Your task to perform on an android device: open the mobile data screen to see how much data has been used Image 0: 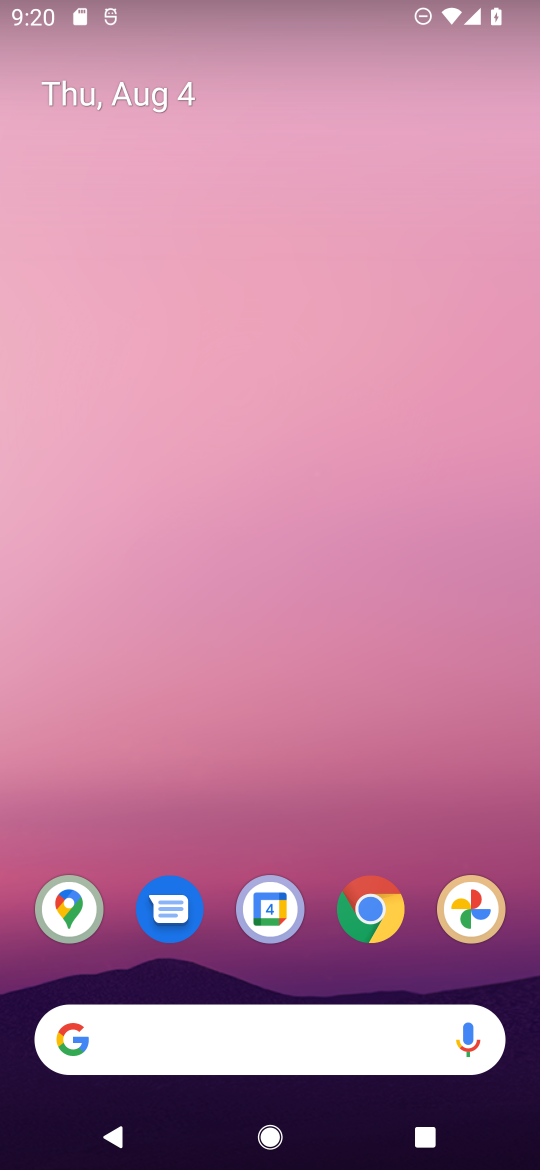
Step 0: press home button
Your task to perform on an android device: open the mobile data screen to see how much data has been used Image 1: 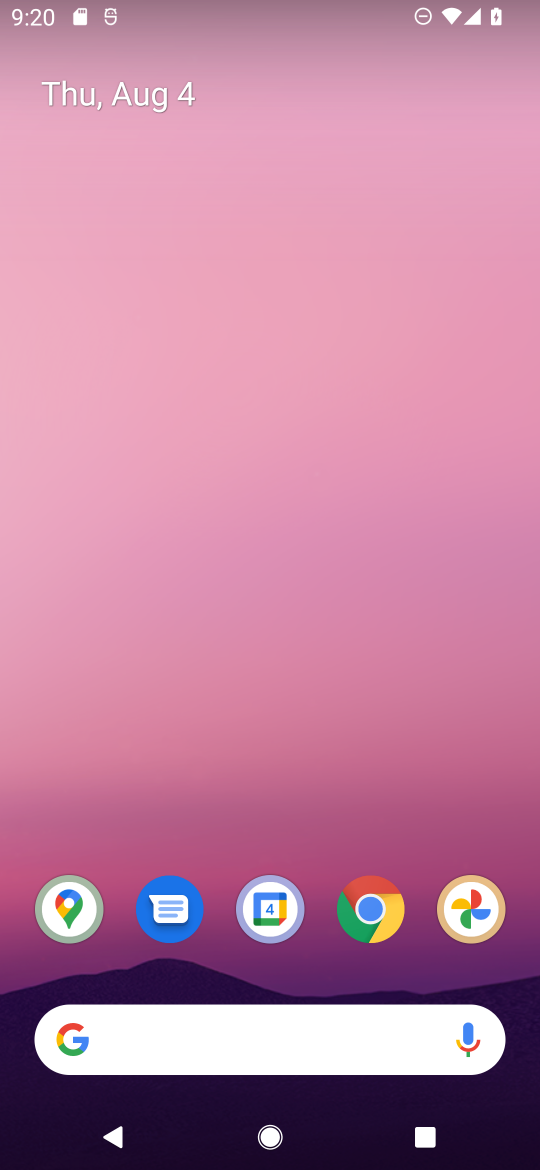
Step 1: drag from (321, 841) to (335, 185)
Your task to perform on an android device: open the mobile data screen to see how much data has been used Image 2: 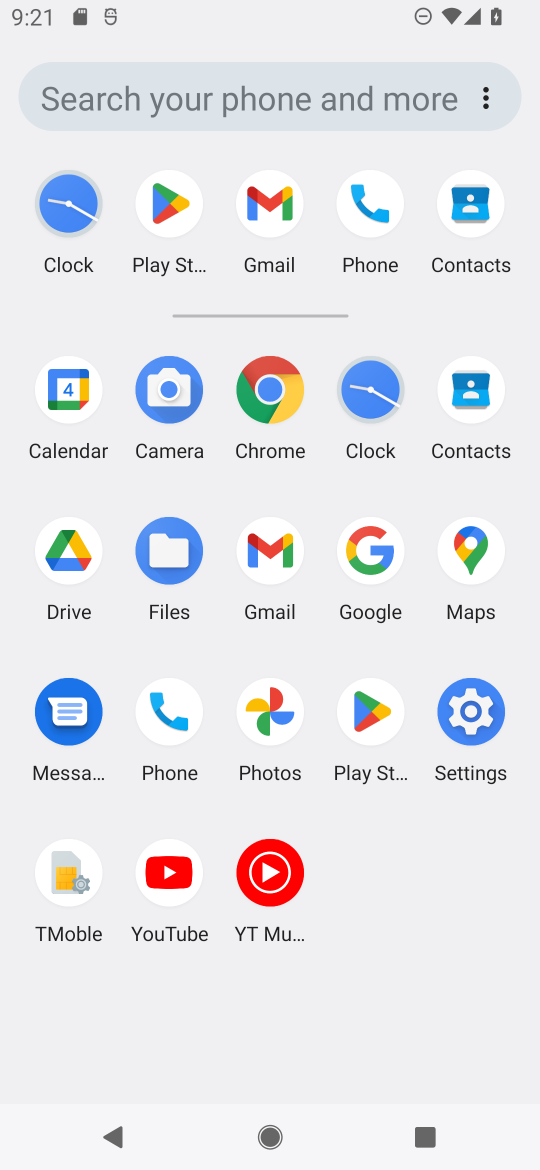
Step 2: click (471, 711)
Your task to perform on an android device: open the mobile data screen to see how much data has been used Image 3: 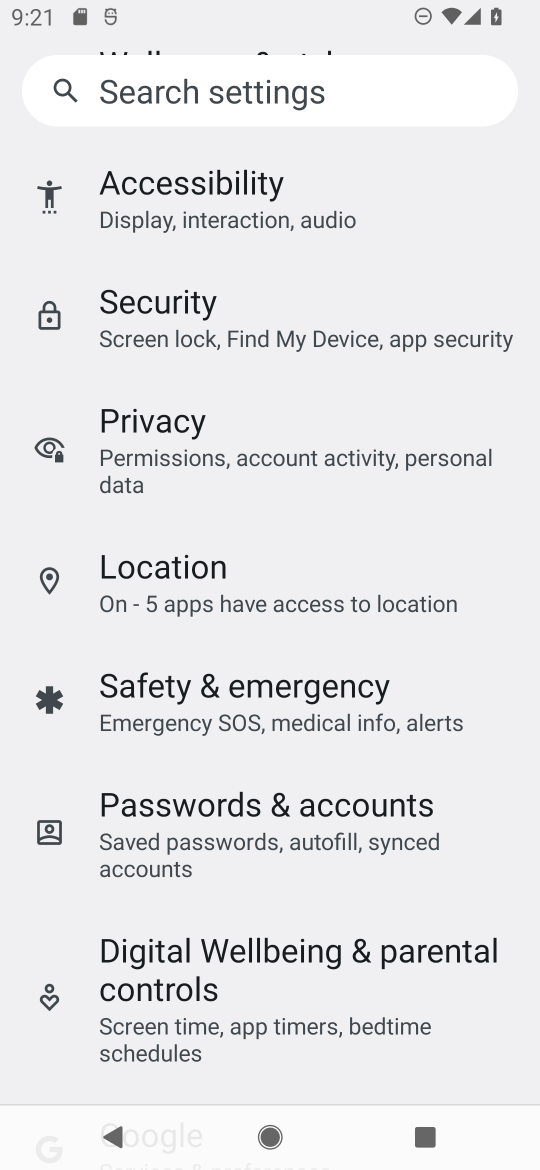
Step 3: drag from (496, 510) to (494, 741)
Your task to perform on an android device: open the mobile data screen to see how much data has been used Image 4: 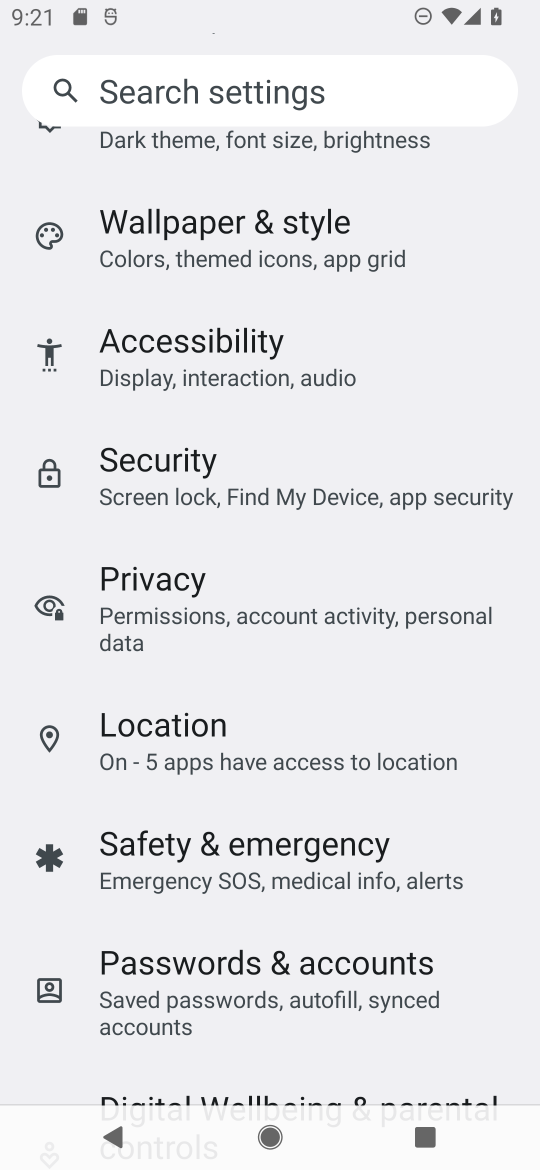
Step 4: drag from (487, 300) to (491, 579)
Your task to perform on an android device: open the mobile data screen to see how much data has been used Image 5: 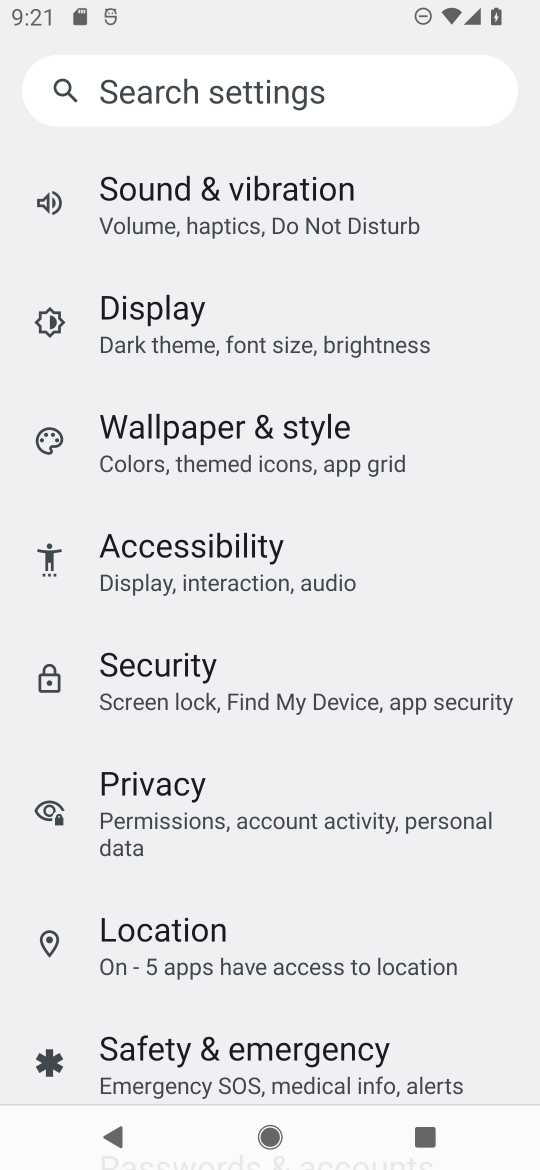
Step 5: drag from (476, 277) to (487, 477)
Your task to perform on an android device: open the mobile data screen to see how much data has been used Image 6: 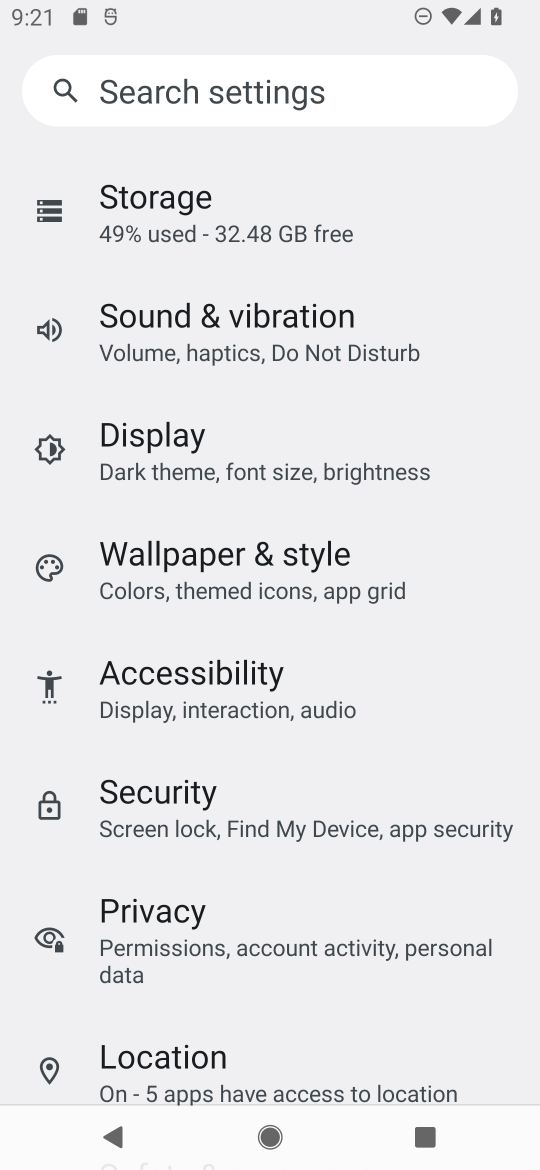
Step 6: drag from (468, 225) to (481, 489)
Your task to perform on an android device: open the mobile data screen to see how much data has been used Image 7: 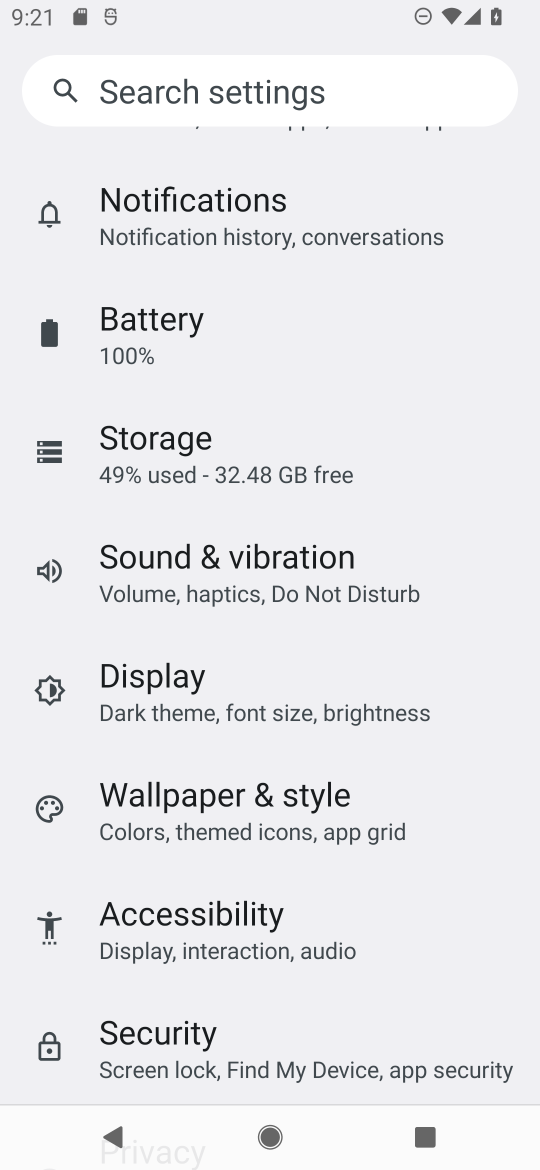
Step 7: drag from (481, 183) to (483, 503)
Your task to perform on an android device: open the mobile data screen to see how much data has been used Image 8: 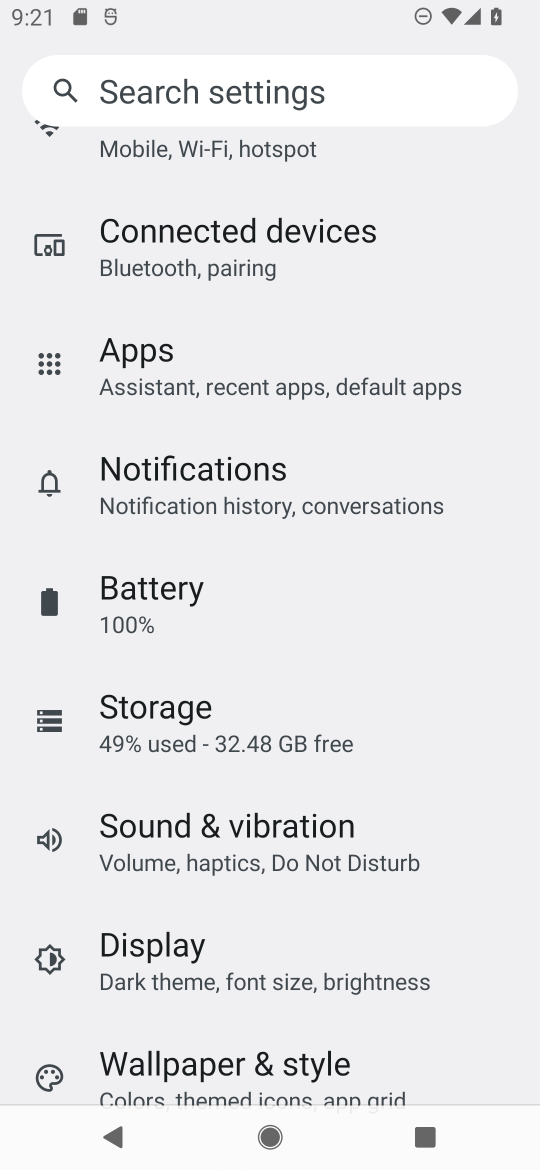
Step 8: drag from (484, 215) to (483, 461)
Your task to perform on an android device: open the mobile data screen to see how much data has been used Image 9: 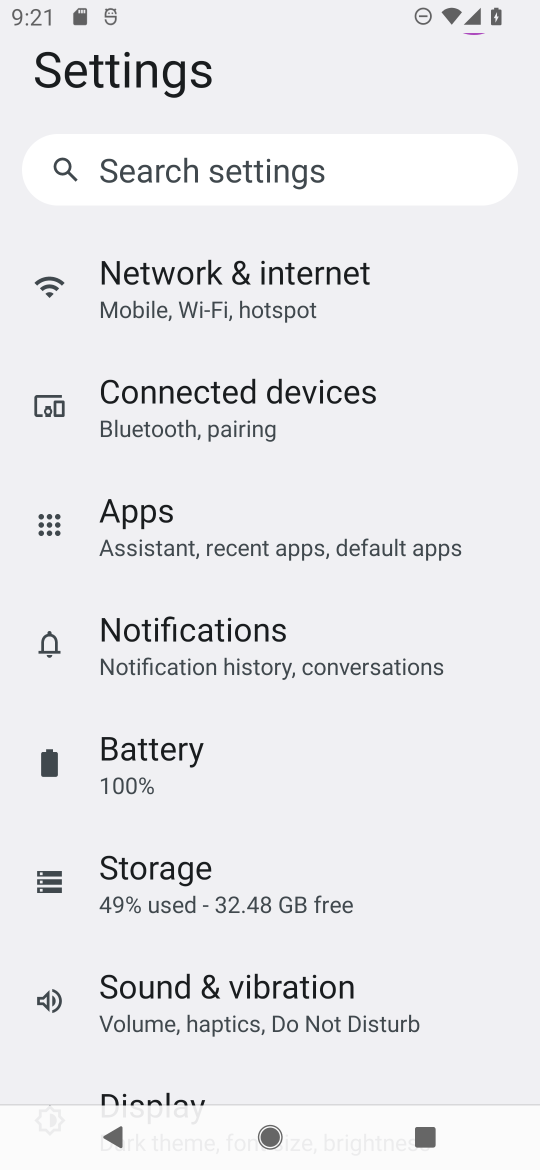
Step 9: drag from (487, 251) to (481, 618)
Your task to perform on an android device: open the mobile data screen to see how much data has been used Image 10: 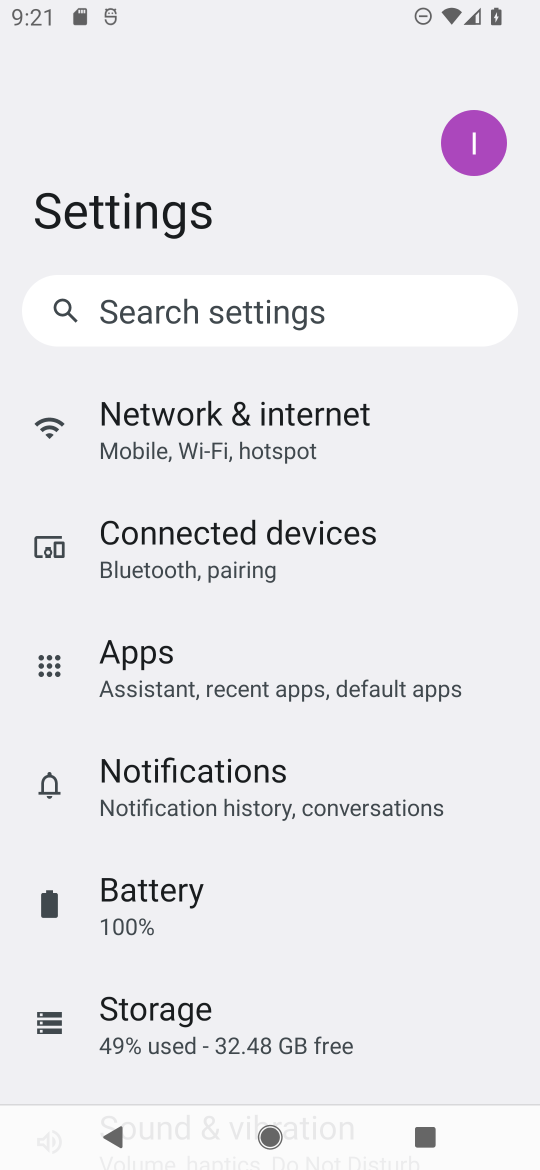
Step 10: drag from (473, 424) to (478, 706)
Your task to perform on an android device: open the mobile data screen to see how much data has been used Image 11: 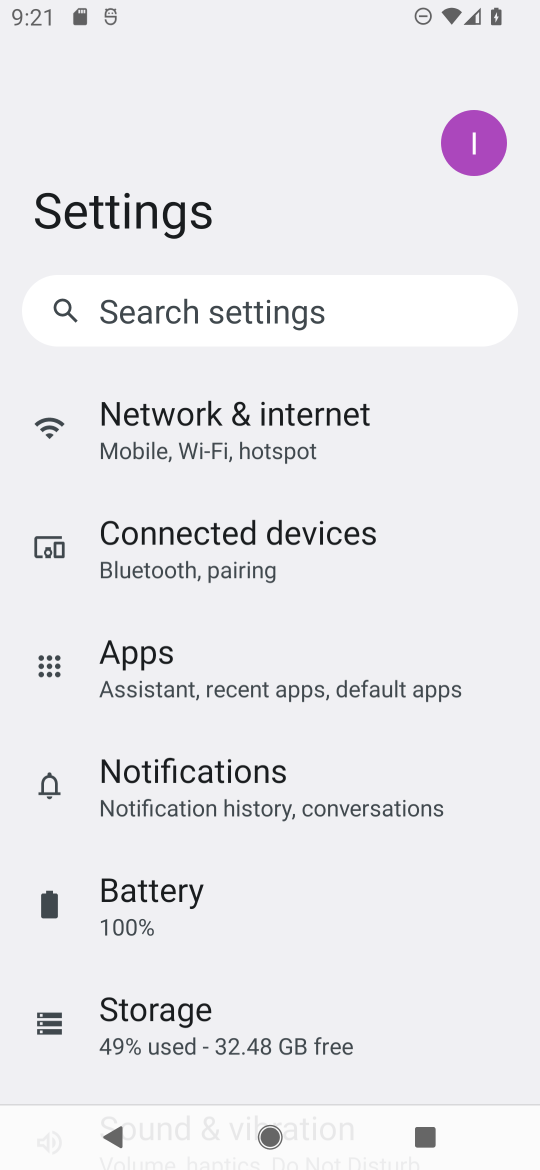
Step 11: drag from (437, 867) to (463, 647)
Your task to perform on an android device: open the mobile data screen to see how much data has been used Image 12: 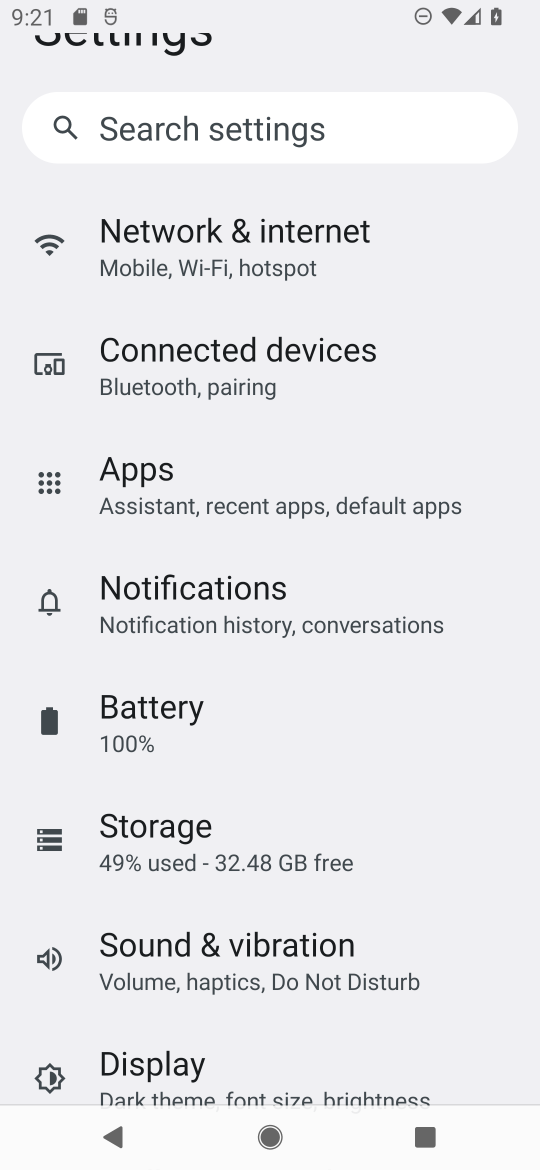
Step 12: drag from (452, 864) to (470, 657)
Your task to perform on an android device: open the mobile data screen to see how much data has been used Image 13: 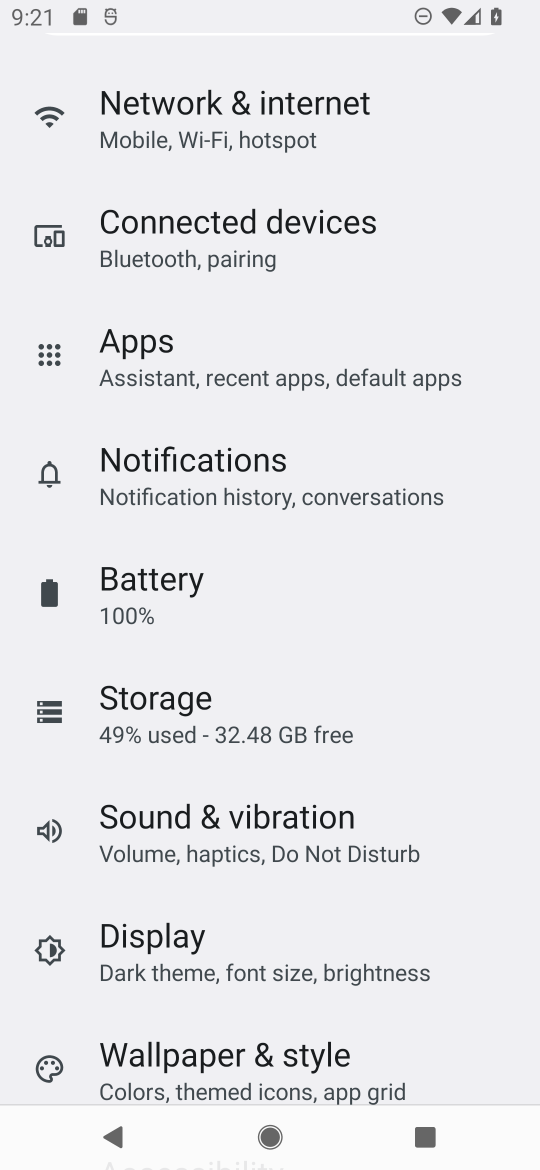
Step 13: drag from (458, 944) to (471, 654)
Your task to perform on an android device: open the mobile data screen to see how much data has been used Image 14: 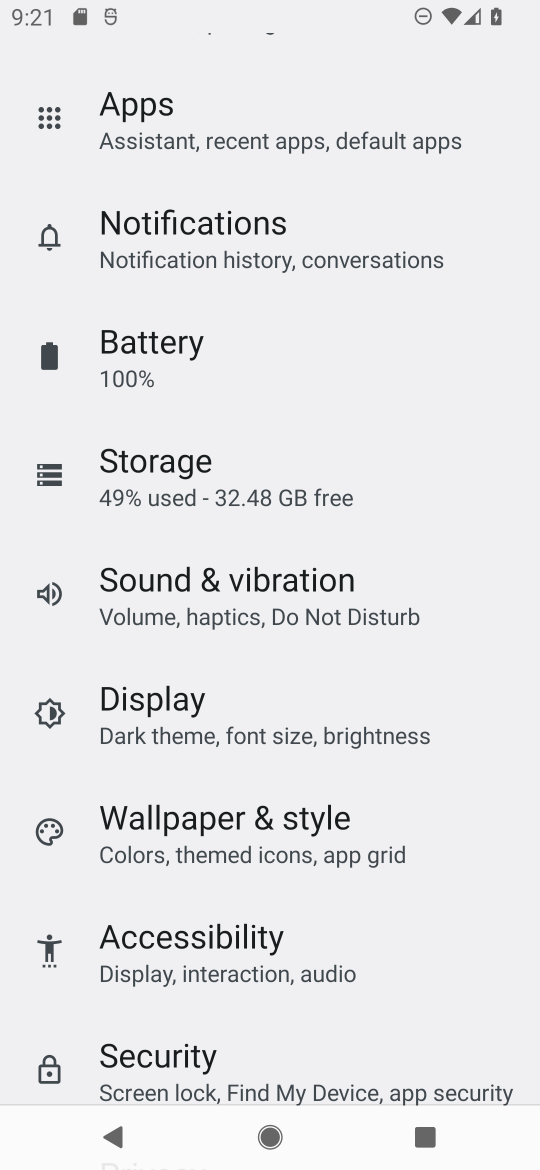
Step 14: drag from (435, 974) to (450, 690)
Your task to perform on an android device: open the mobile data screen to see how much data has been used Image 15: 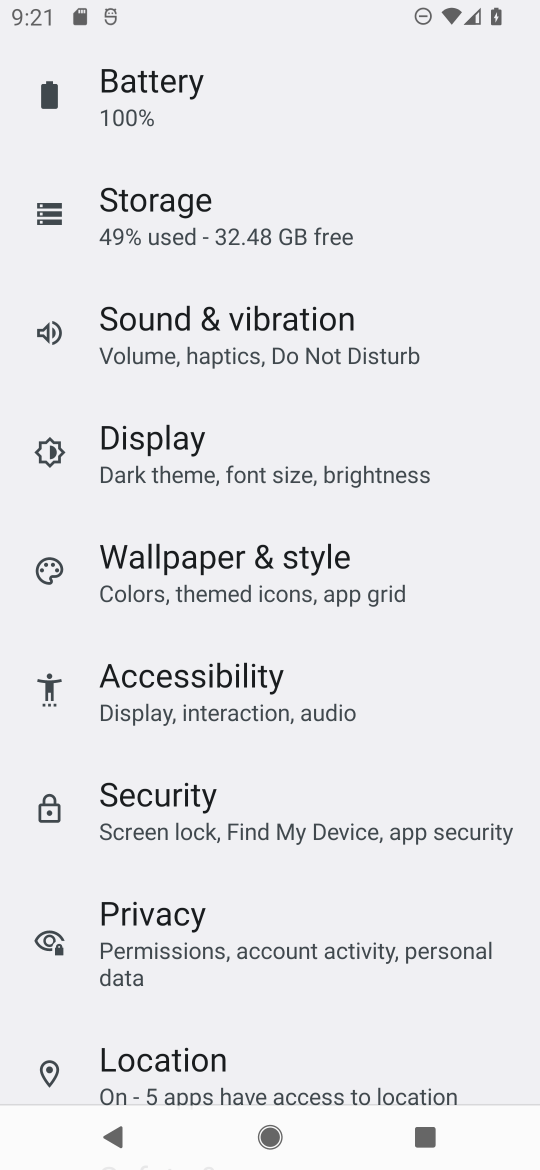
Step 15: drag from (403, 947) to (448, 684)
Your task to perform on an android device: open the mobile data screen to see how much data has been used Image 16: 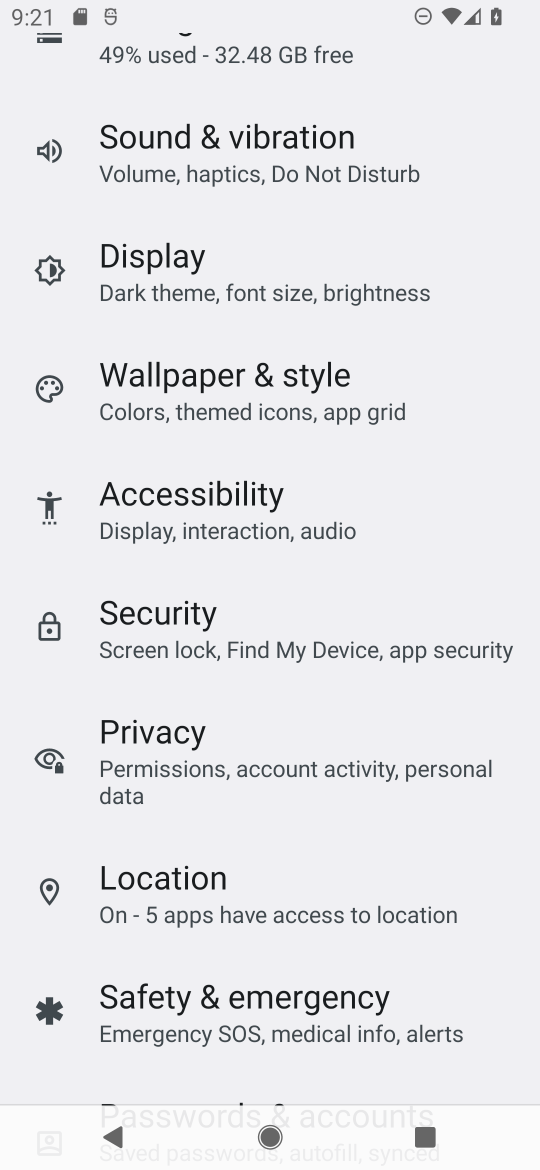
Step 16: drag from (477, 360) to (481, 598)
Your task to perform on an android device: open the mobile data screen to see how much data has been used Image 17: 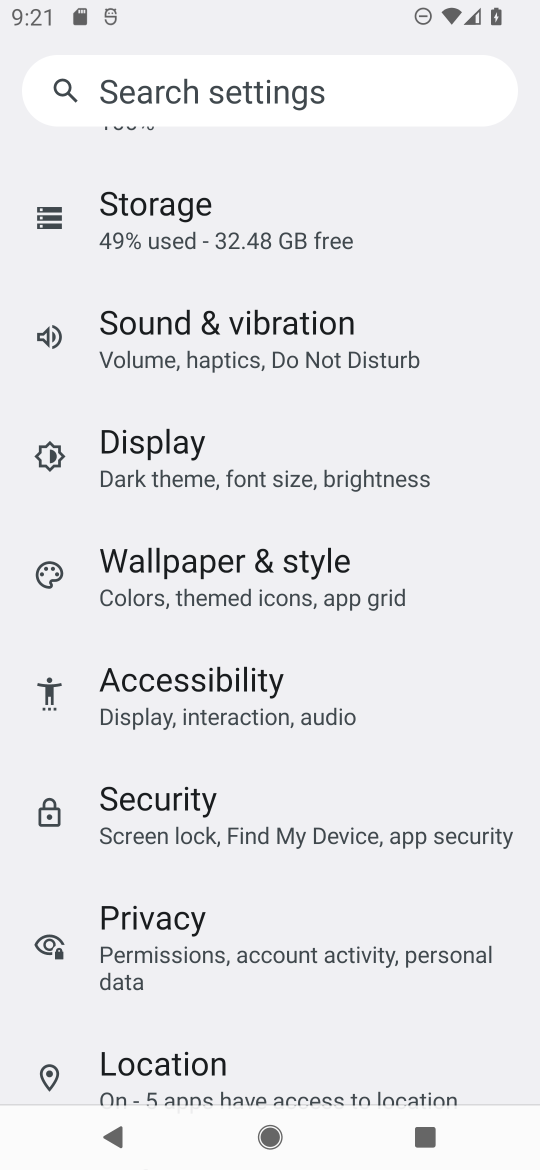
Step 17: drag from (471, 318) to (472, 575)
Your task to perform on an android device: open the mobile data screen to see how much data has been used Image 18: 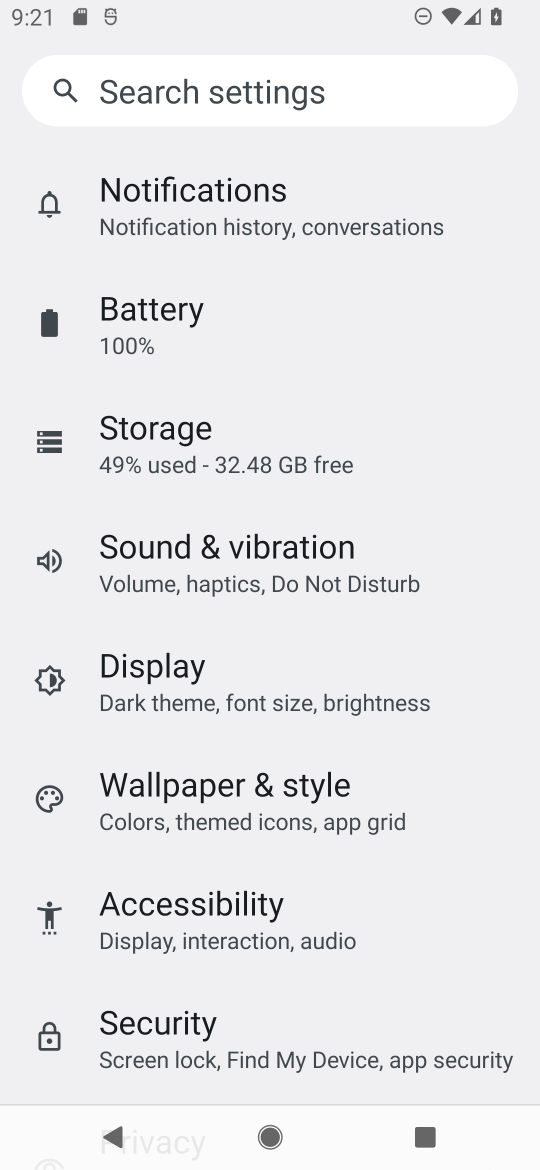
Step 18: drag from (495, 279) to (479, 630)
Your task to perform on an android device: open the mobile data screen to see how much data has been used Image 19: 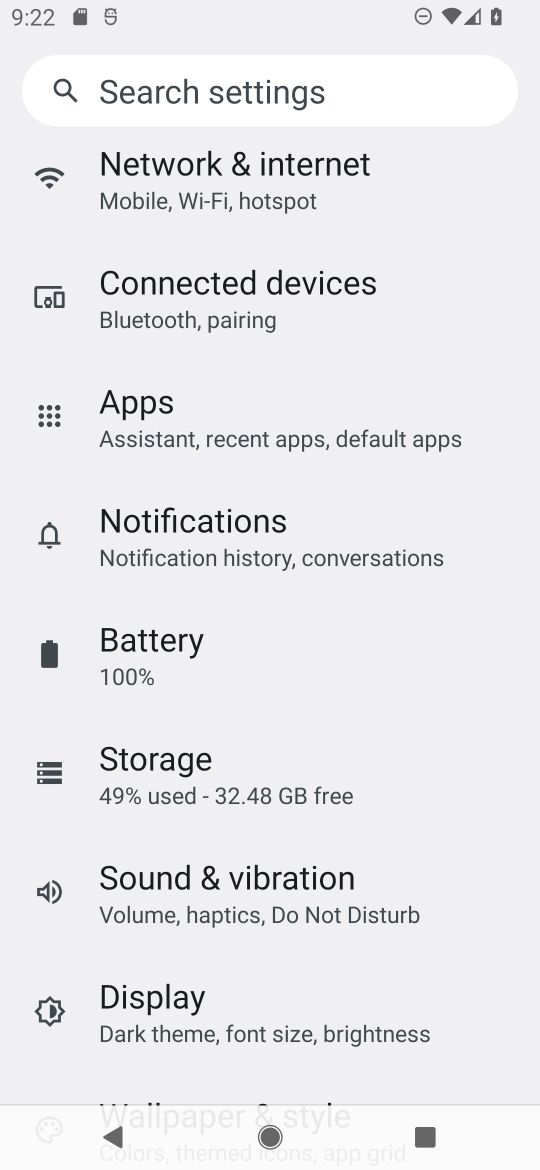
Step 19: drag from (504, 237) to (484, 575)
Your task to perform on an android device: open the mobile data screen to see how much data has been used Image 20: 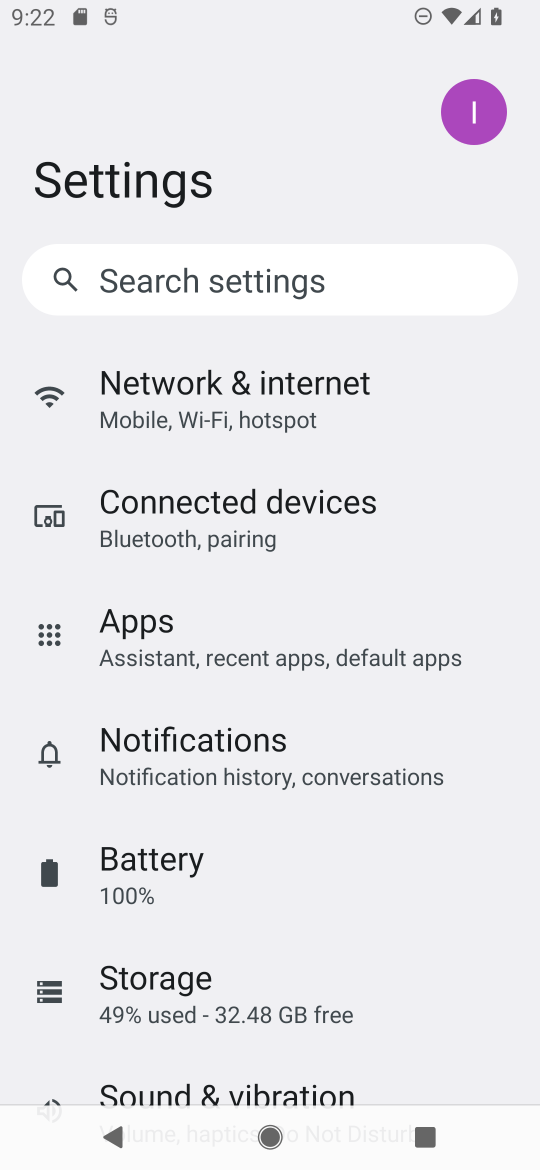
Step 20: click (321, 389)
Your task to perform on an android device: open the mobile data screen to see how much data has been used Image 21: 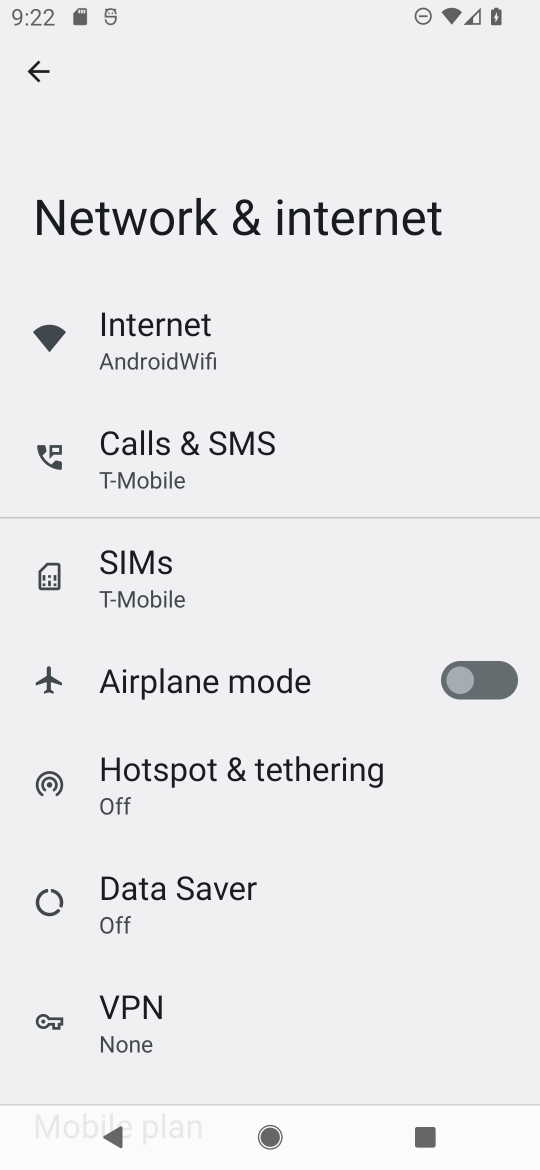
Step 21: drag from (340, 764) to (350, 627)
Your task to perform on an android device: open the mobile data screen to see how much data has been used Image 22: 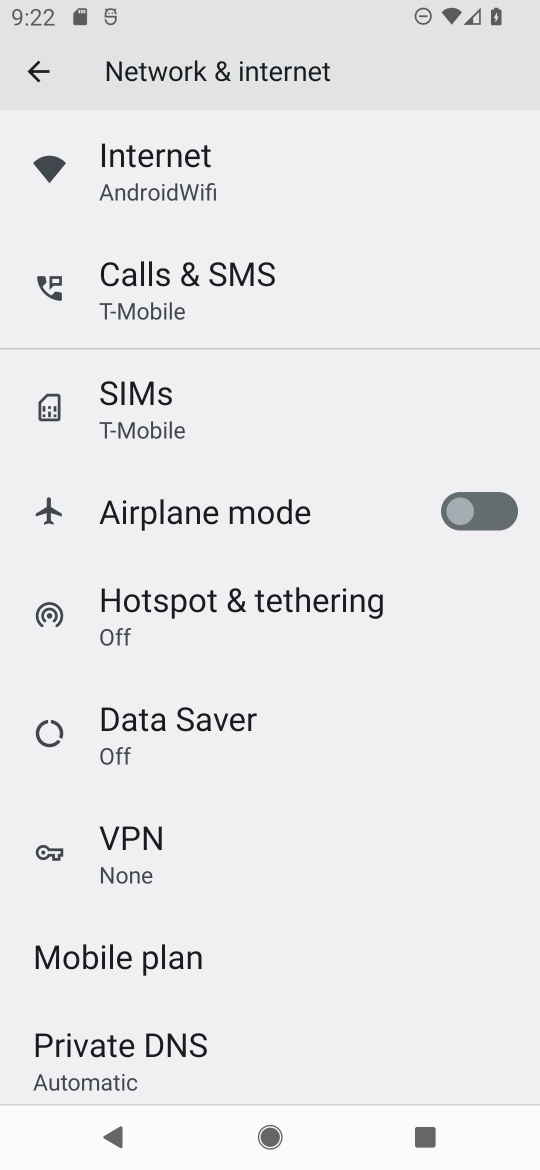
Step 22: drag from (355, 978) to (386, 650)
Your task to perform on an android device: open the mobile data screen to see how much data has been used Image 23: 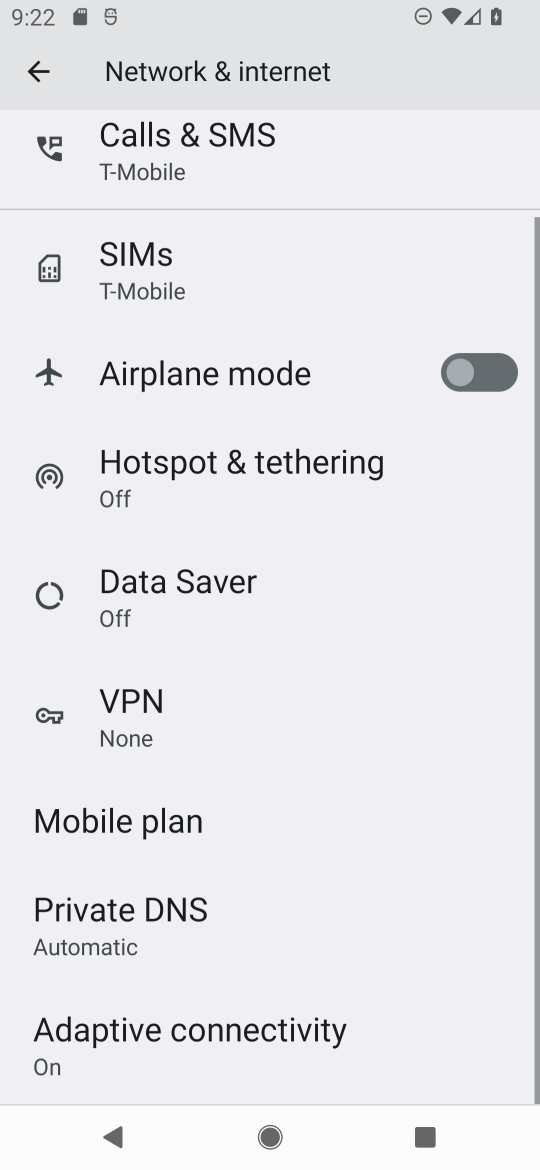
Step 23: drag from (355, 926) to (360, 575)
Your task to perform on an android device: open the mobile data screen to see how much data has been used Image 24: 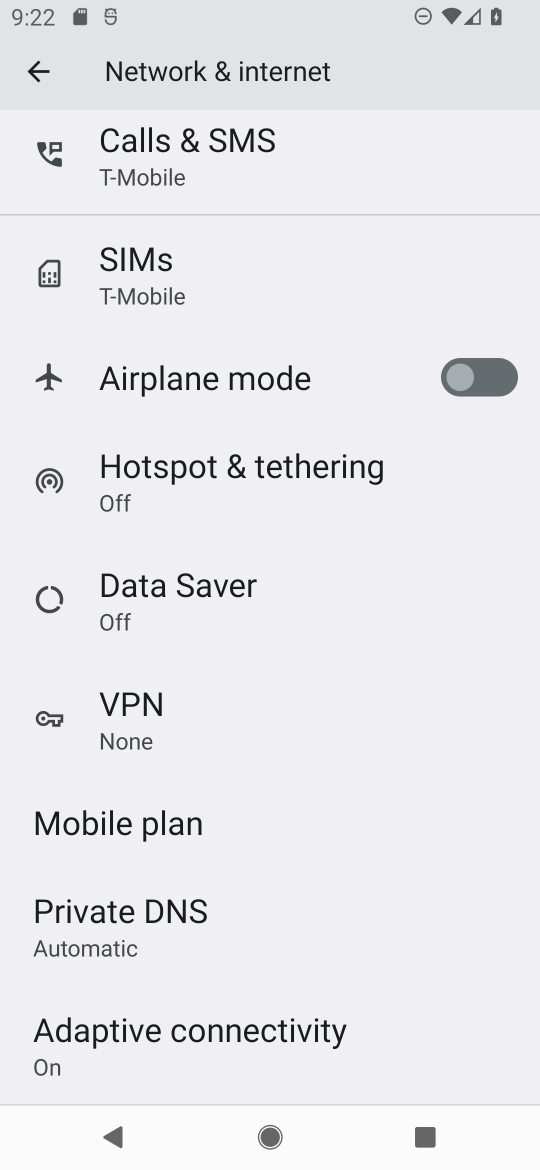
Step 24: drag from (353, 956) to (385, 584)
Your task to perform on an android device: open the mobile data screen to see how much data has been used Image 25: 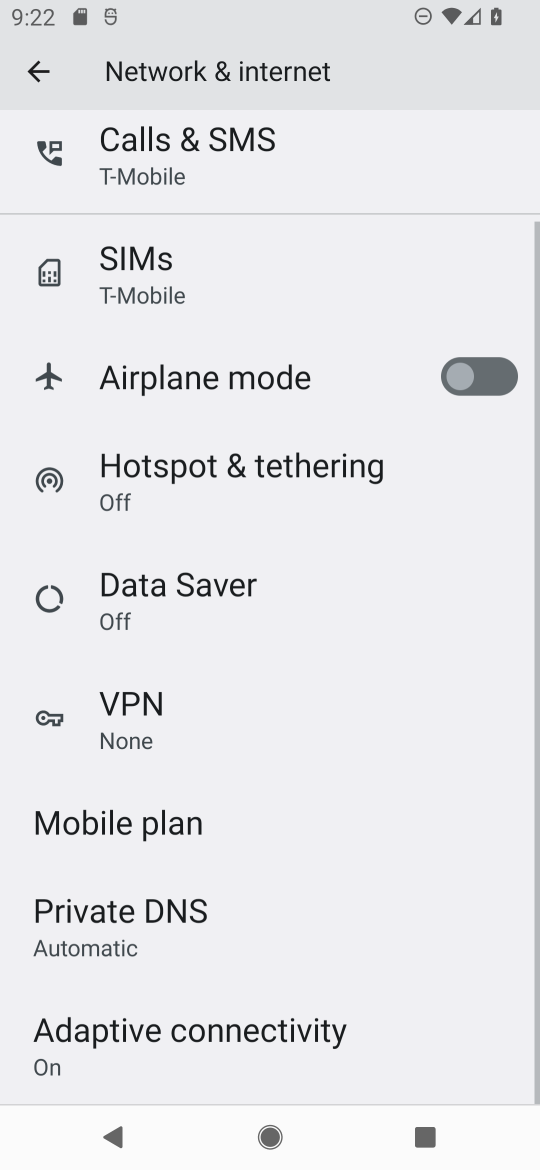
Step 25: drag from (385, 285) to (378, 622)
Your task to perform on an android device: open the mobile data screen to see how much data has been used Image 26: 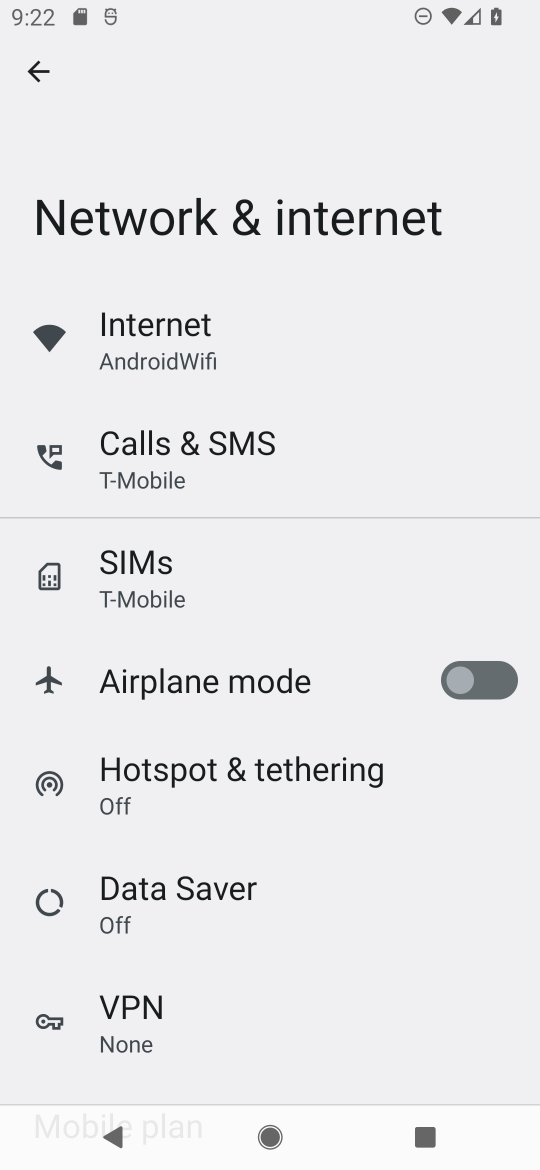
Step 26: drag from (375, 352) to (366, 653)
Your task to perform on an android device: open the mobile data screen to see how much data has been used Image 27: 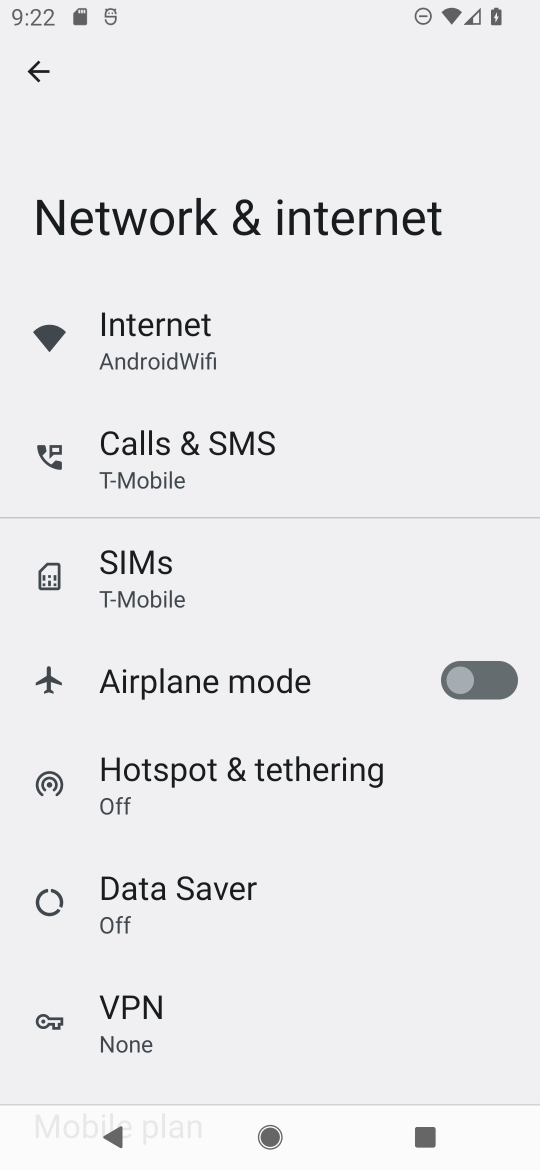
Step 27: click (383, 588)
Your task to perform on an android device: open the mobile data screen to see how much data has been used Image 28: 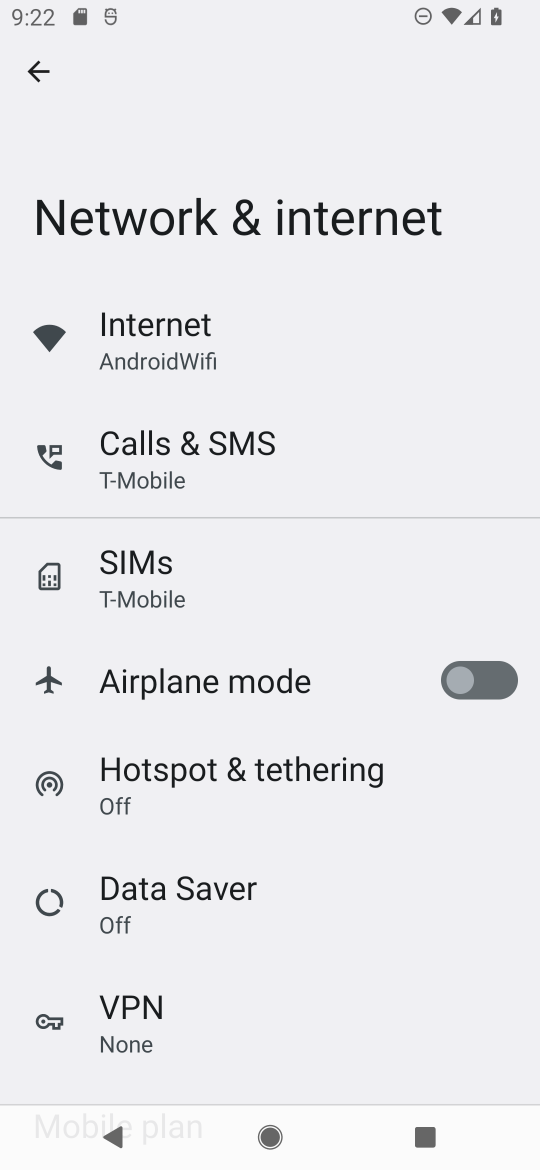
Step 28: drag from (356, 786) to (368, 583)
Your task to perform on an android device: open the mobile data screen to see how much data has been used Image 29: 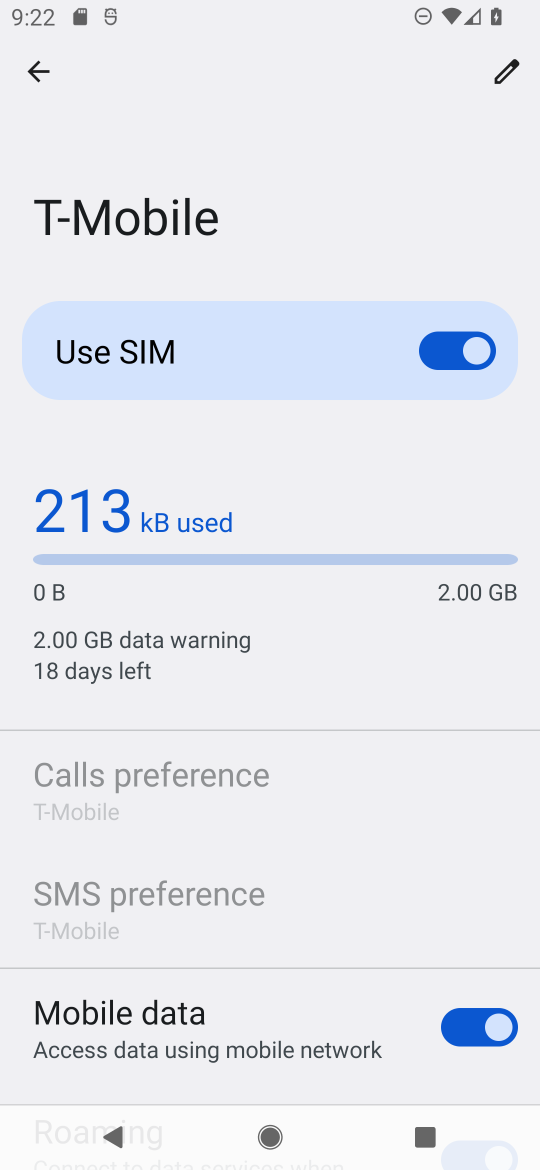
Step 29: drag from (310, 830) to (330, 498)
Your task to perform on an android device: open the mobile data screen to see how much data has been used Image 30: 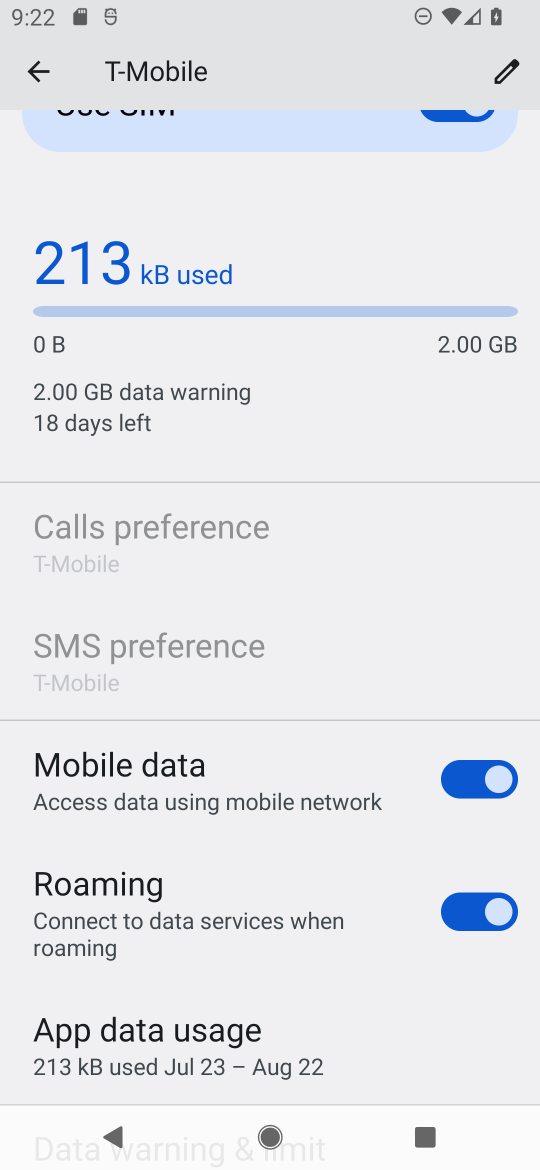
Step 30: drag from (285, 971) to (335, 532)
Your task to perform on an android device: open the mobile data screen to see how much data has been used Image 31: 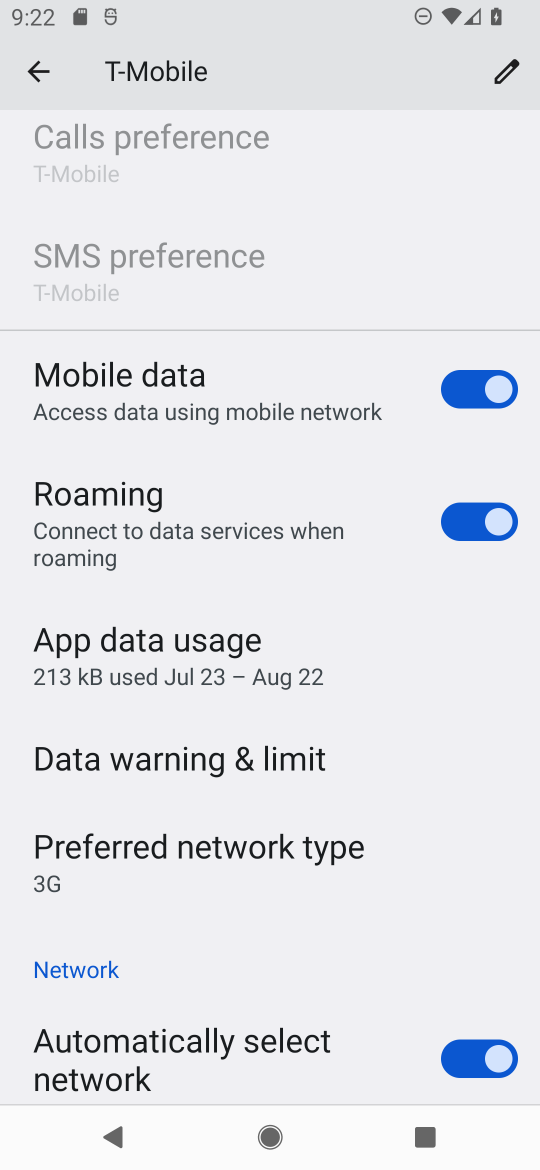
Step 31: click (319, 647)
Your task to perform on an android device: open the mobile data screen to see how much data has been used Image 32: 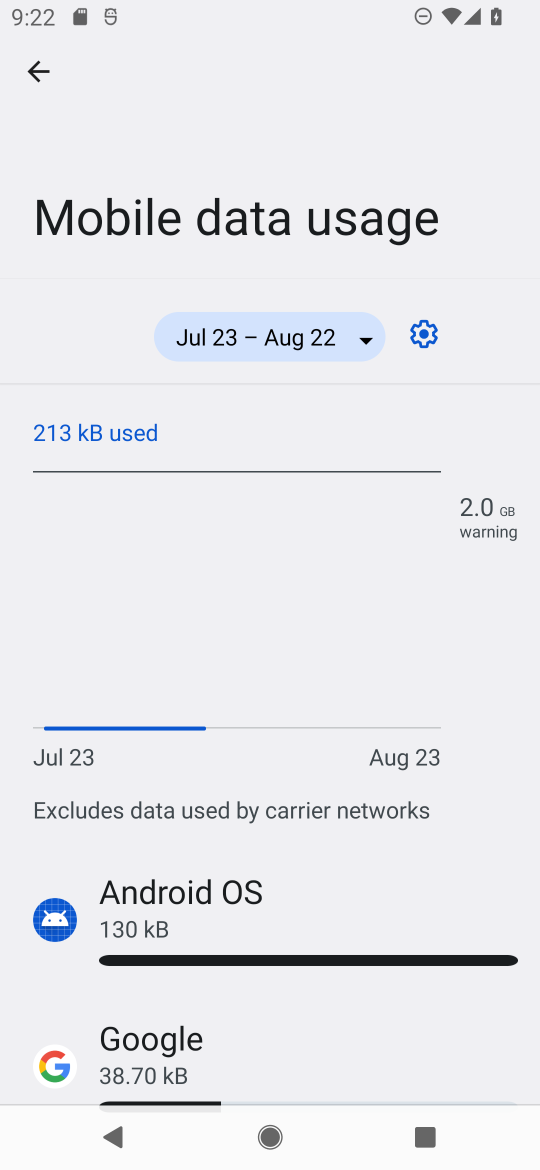
Step 32: task complete